Your task to perform on an android device: turn on location history Image 0: 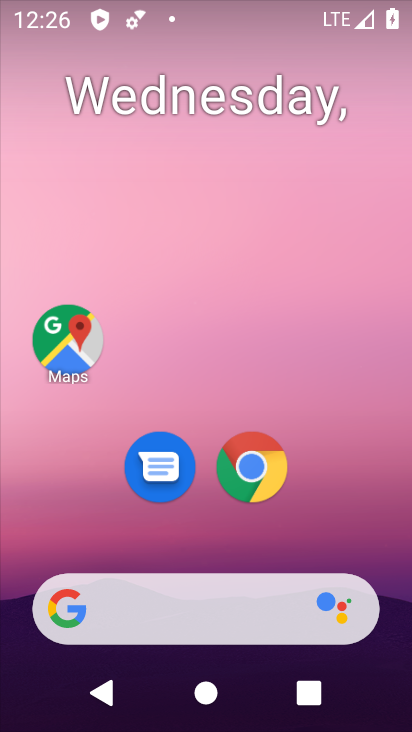
Step 0: drag from (352, 530) to (352, 166)
Your task to perform on an android device: turn on location history Image 1: 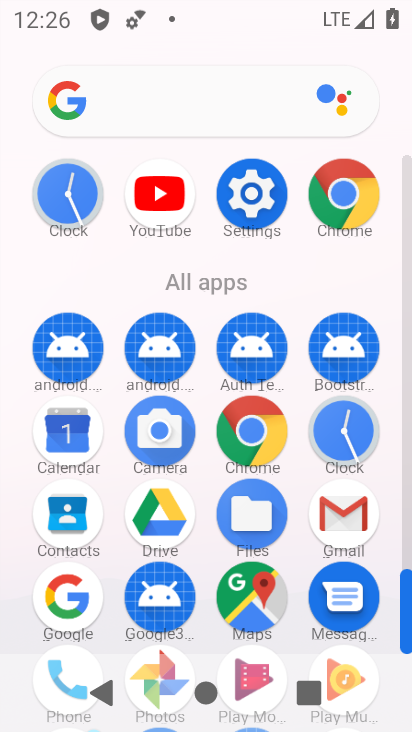
Step 1: click (269, 212)
Your task to perform on an android device: turn on location history Image 2: 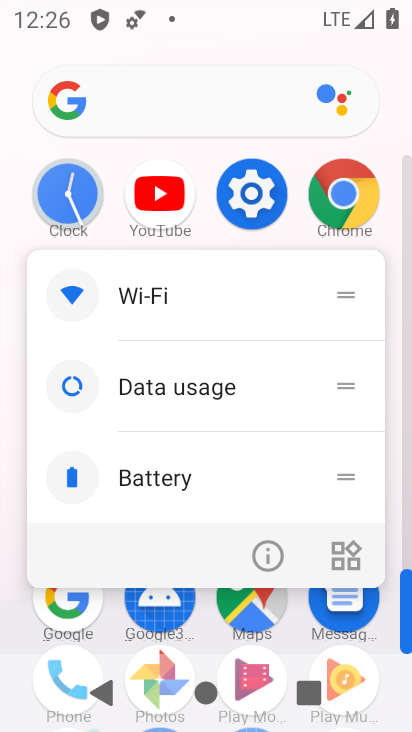
Step 2: click (269, 212)
Your task to perform on an android device: turn on location history Image 3: 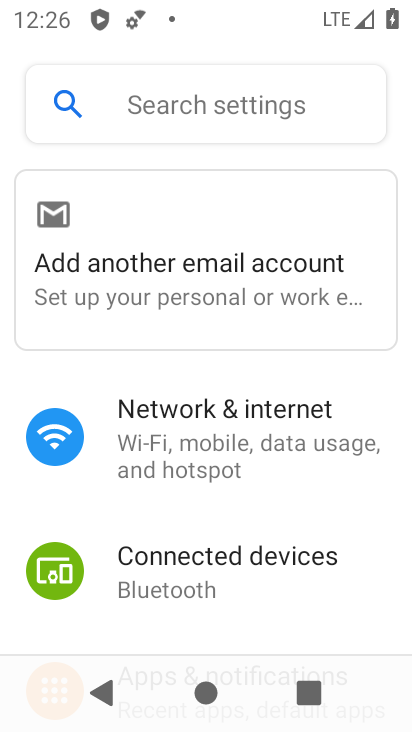
Step 3: drag from (375, 487) to (383, 337)
Your task to perform on an android device: turn on location history Image 4: 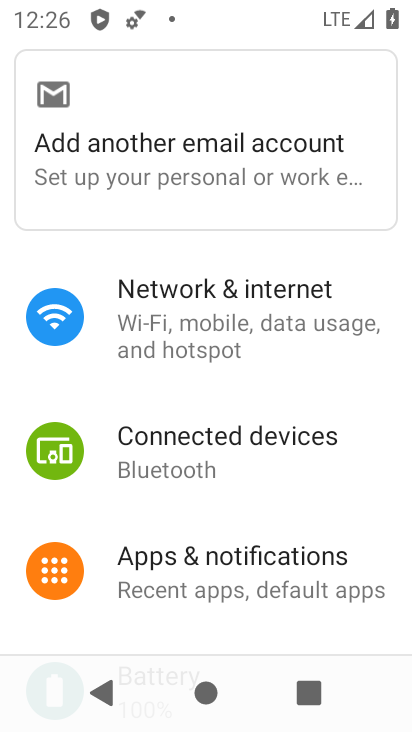
Step 4: drag from (377, 500) to (383, 382)
Your task to perform on an android device: turn on location history Image 5: 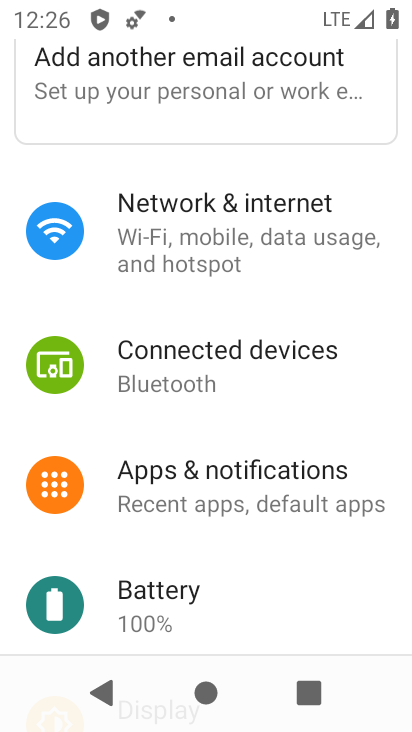
Step 5: drag from (348, 532) to (348, 395)
Your task to perform on an android device: turn on location history Image 6: 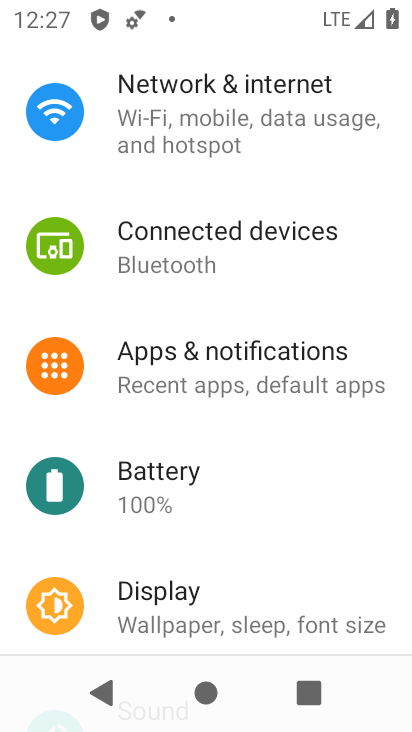
Step 6: drag from (329, 531) to (346, 404)
Your task to perform on an android device: turn on location history Image 7: 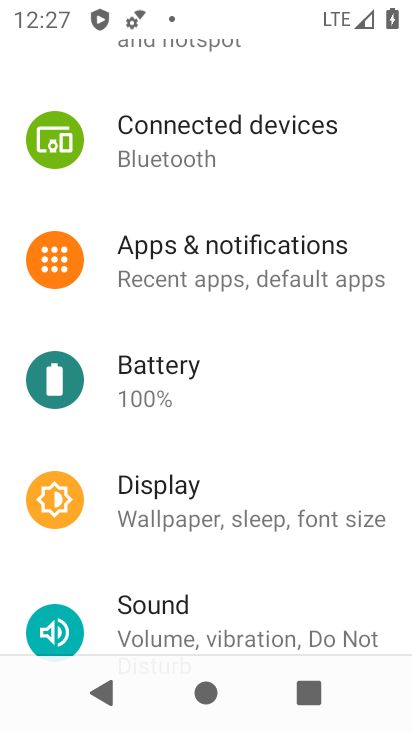
Step 7: drag from (354, 580) to (343, 442)
Your task to perform on an android device: turn on location history Image 8: 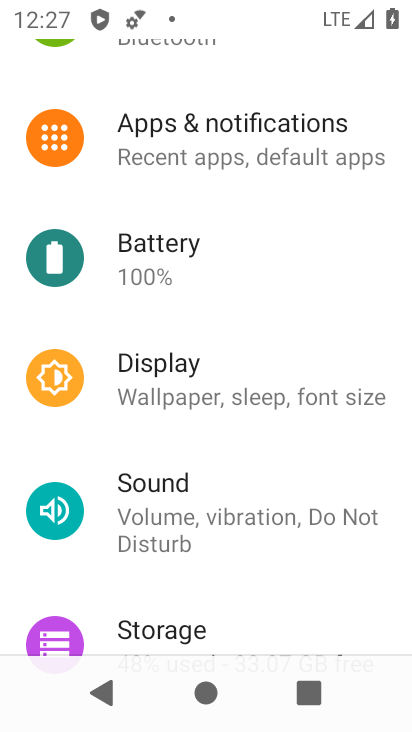
Step 8: drag from (338, 594) to (340, 424)
Your task to perform on an android device: turn on location history Image 9: 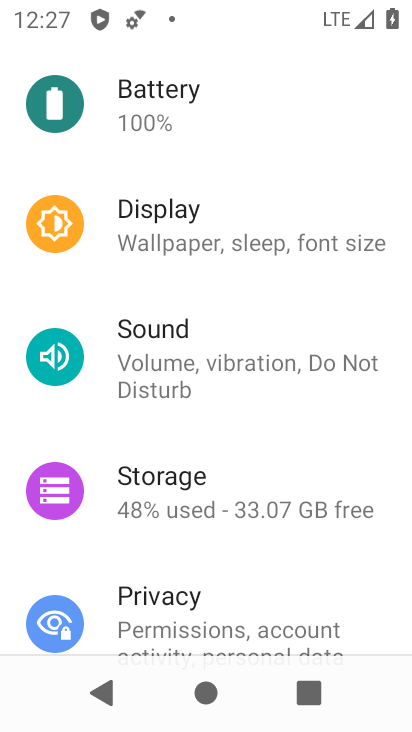
Step 9: drag from (350, 599) to (371, 395)
Your task to perform on an android device: turn on location history Image 10: 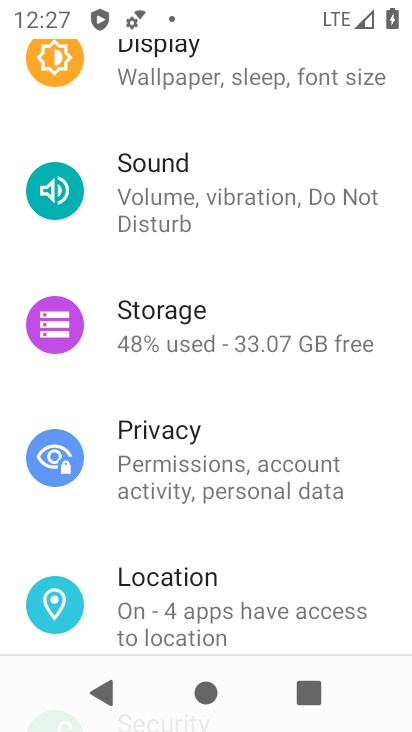
Step 10: drag from (353, 568) to (358, 408)
Your task to perform on an android device: turn on location history Image 11: 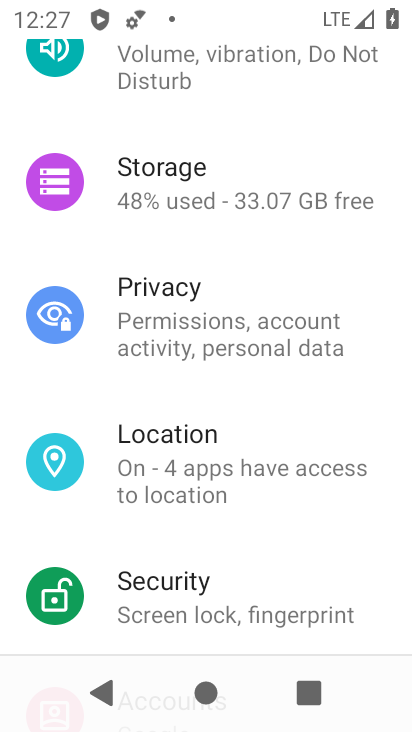
Step 11: click (263, 459)
Your task to perform on an android device: turn on location history Image 12: 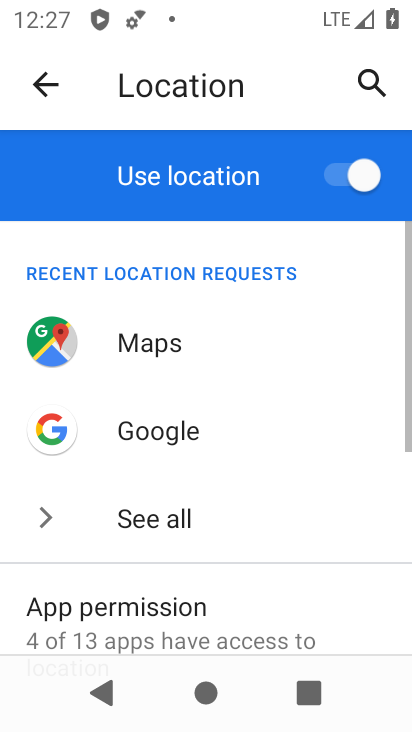
Step 12: drag from (265, 526) to (279, 281)
Your task to perform on an android device: turn on location history Image 13: 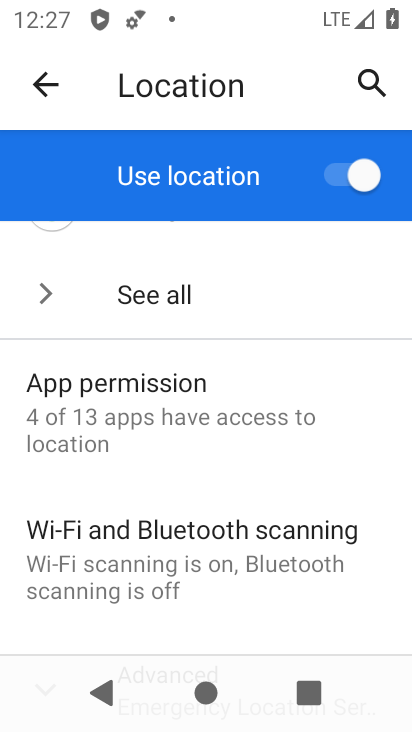
Step 13: drag from (275, 554) to (273, 296)
Your task to perform on an android device: turn on location history Image 14: 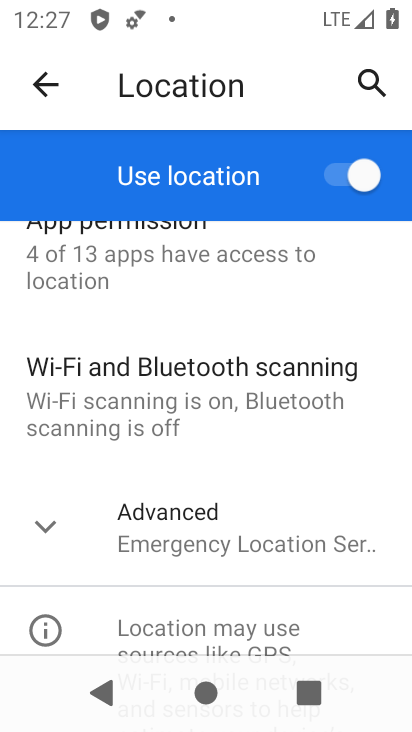
Step 14: click (273, 530)
Your task to perform on an android device: turn on location history Image 15: 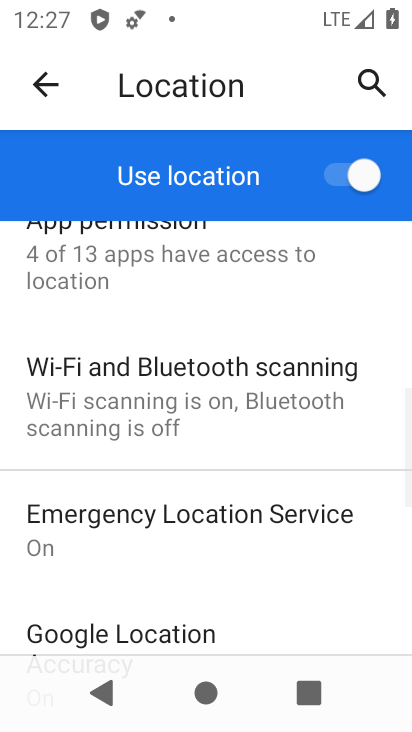
Step 15: drag from (287, 580) to (290, 402)
Your task to perform on an android device: turn on location history Image 16: 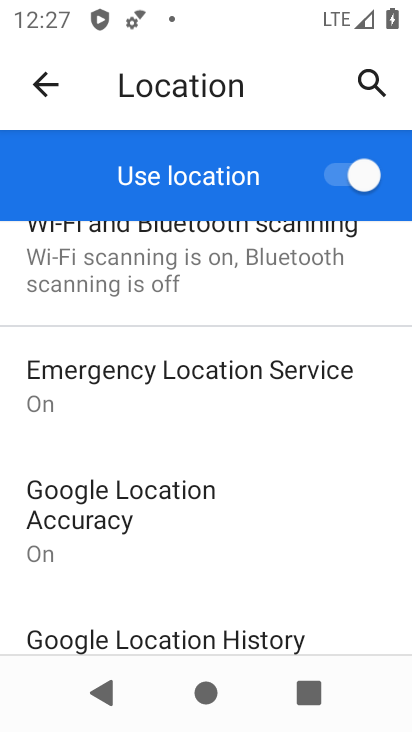
Step 16: drag from (285, 576) to (281, 367)
Your task to perform on an android device: turn on location history Image 17: 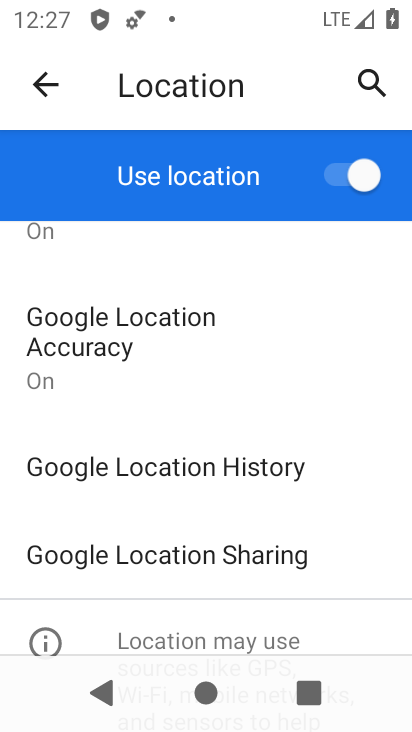
Step 17: click (264, 474)
Your task to perform on an android device: turn on location history Image 18: 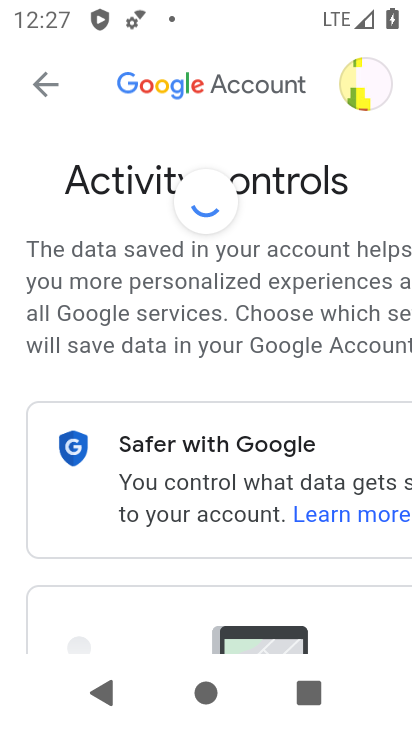
Step 18: task complete